Your task to perform on an android device: Go to Yahoo.com Image 0: 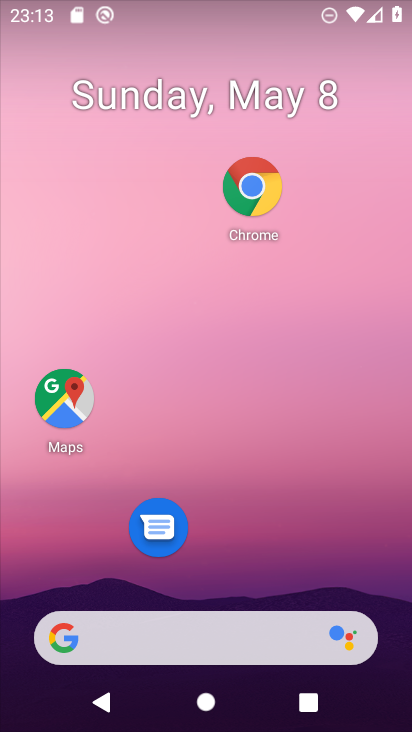
Step 0: drag from (272, 440) to (276, 284)
Your task to perform on an android device: Go to Yahoo.com Image 1: 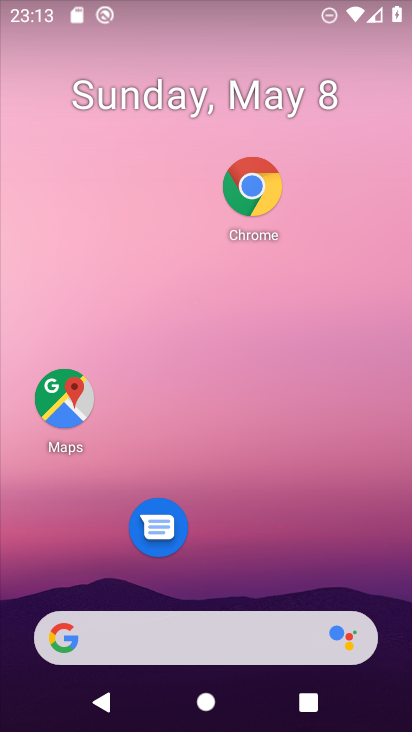
Step 1: drag from (218, 553) to (283, 367)
Your task to perform on an android device: Go to Yahoo.com Image 2: 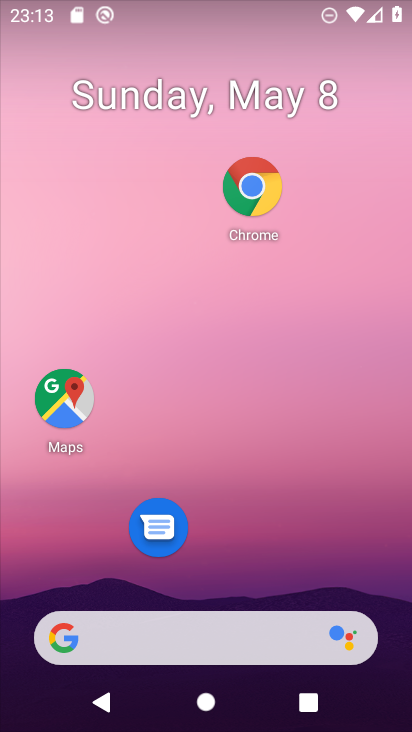
Step 2: drag from (277, 571) to (299, 286)
Your task to perform on an android device: Go to Yahoo.com Image 3: 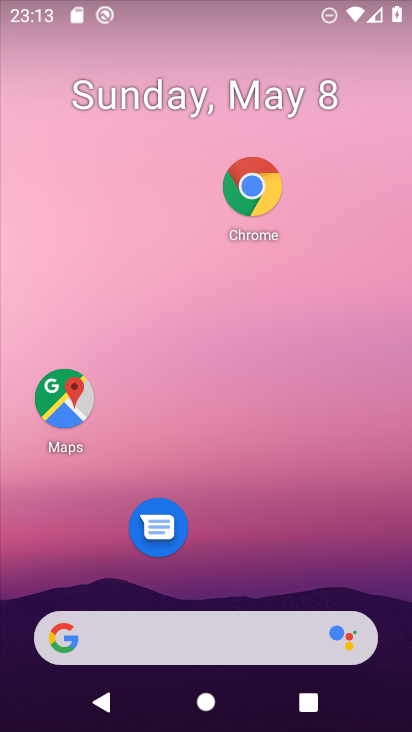
Step 3: drag from (251, 573) to (316, 247)
Your task to perform on an android device: Go to Yahoo.com Image 4: 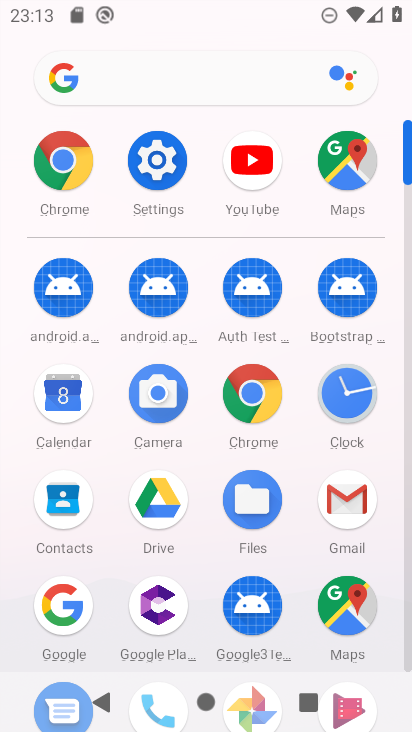
Step 4: click (41, 153)
Your task to perform on an android device: Go to Yahoo.com Image 5: 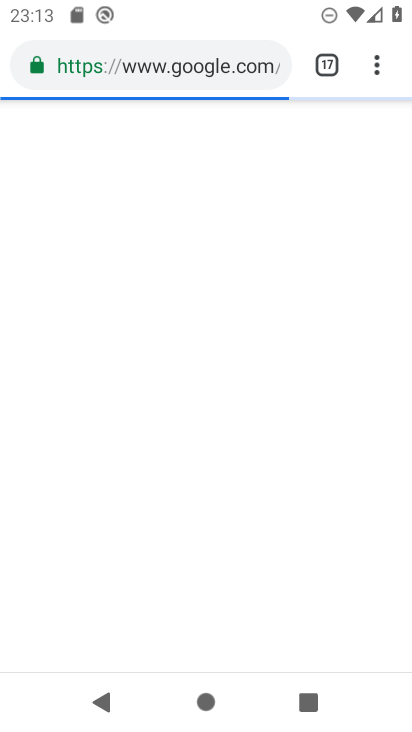
Step 5: click (369, 56)
Your task to perform on an android device: Go to Yahoo.com Image 6: 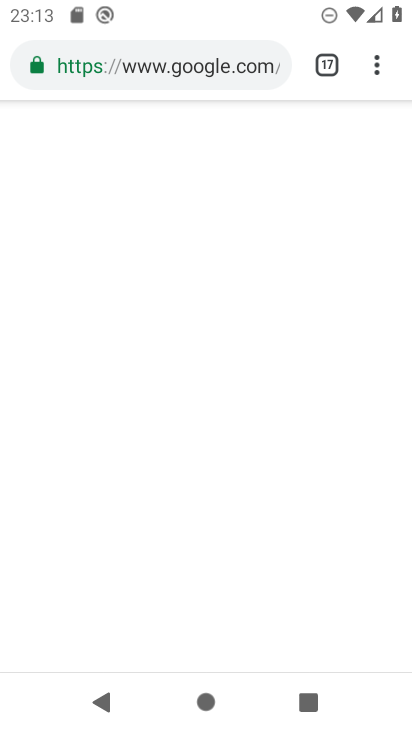
Step 6: click (368, 65)
Your task to perform on an android device: Go to Yahoo.com Image 7: 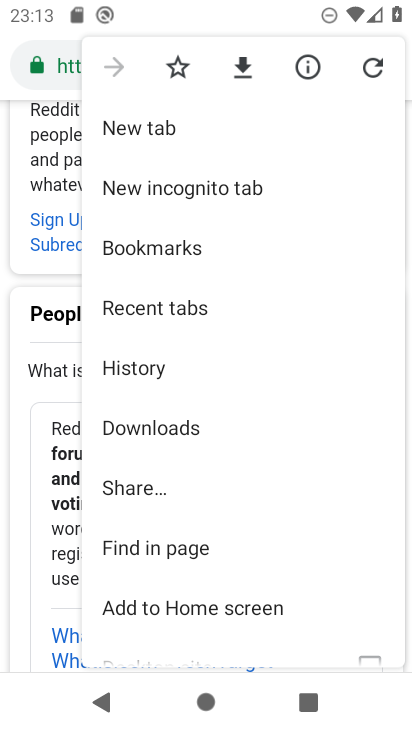
Step 7: click (159, 131)
Your task to perform on an android device: Go to Yahoo.com Image 8: 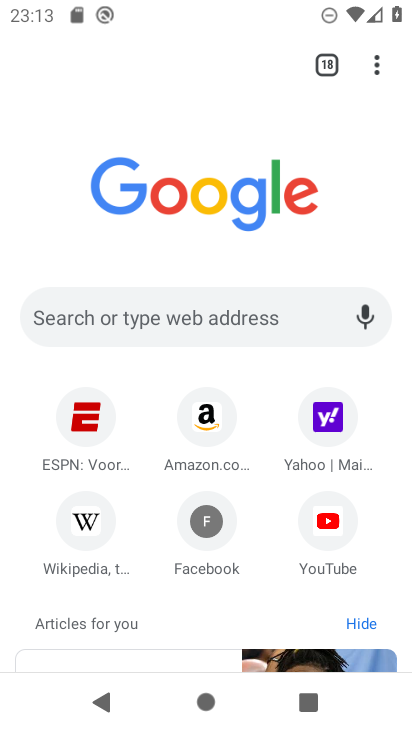
Step 8: click (327, 419)
Your task to perform on an android device: Go to Yahoo.com Image 9: 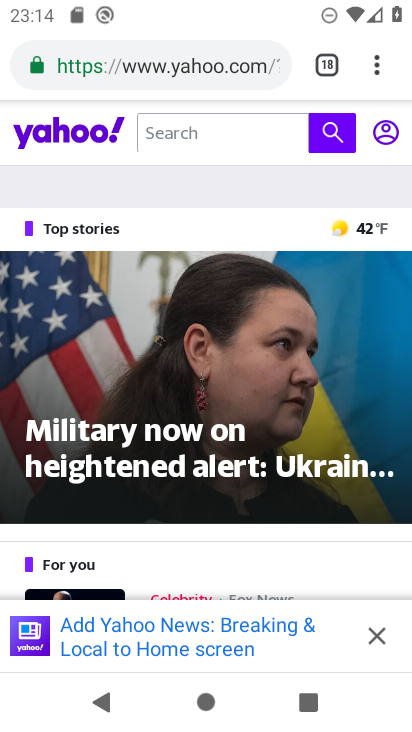
Step 9: task complete